Your task to perform on an android device: Open eBay Image 0: 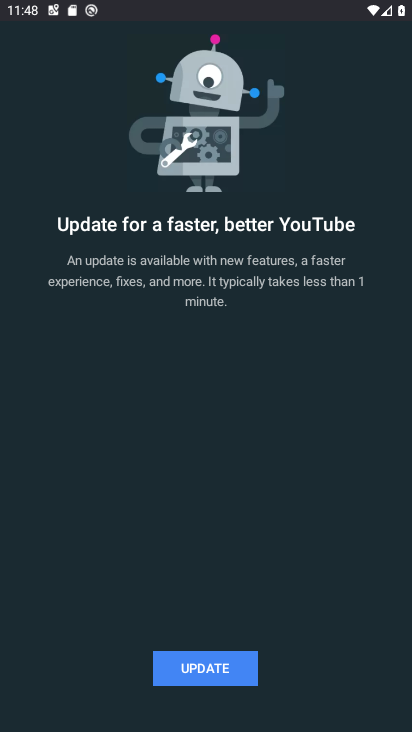
Step 0: press home button
Your task to perform on an android device: Open eBay Image 1: 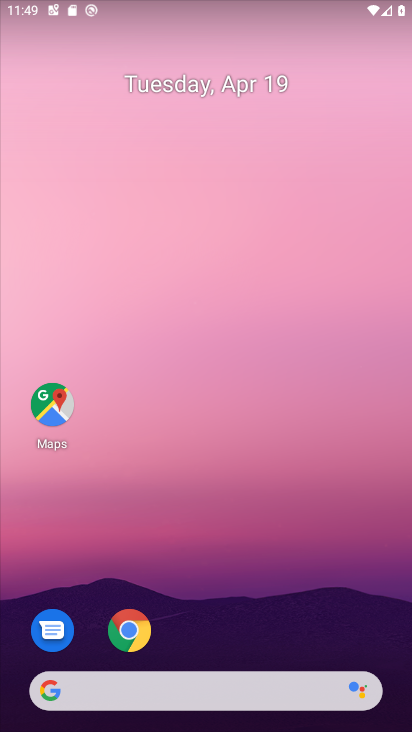
Step 1: drag from (293, 632) to (220, 41)
Your task to perform on an android device: Open eBay Image 2: 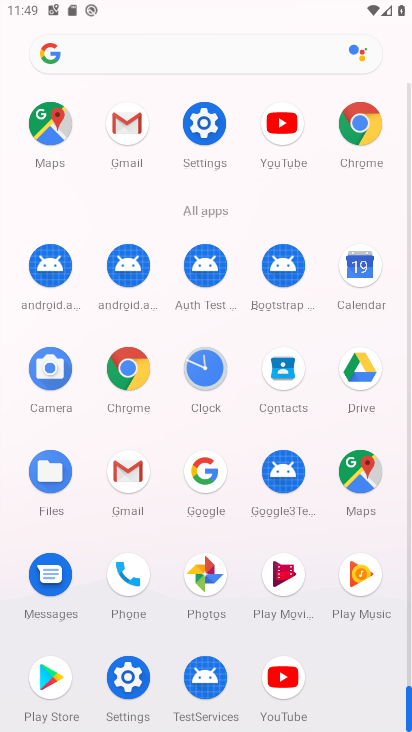
Step 2: click (125, 366)
Your task to perform on an android device: Open eBay Image 3: 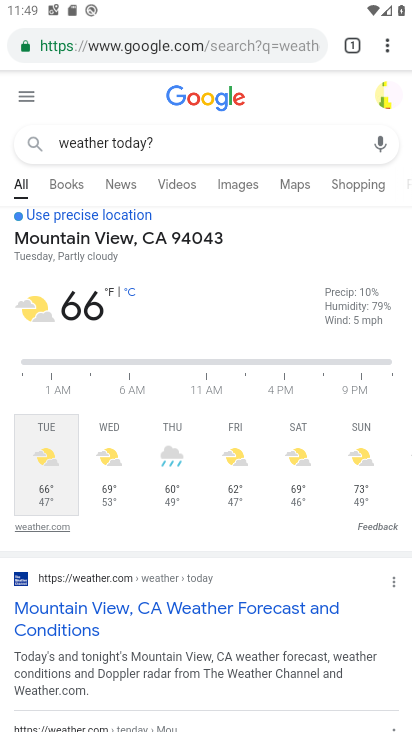
Step 3: click (222, 142)
Your task to perform on an android device: Open eBay Image 4: 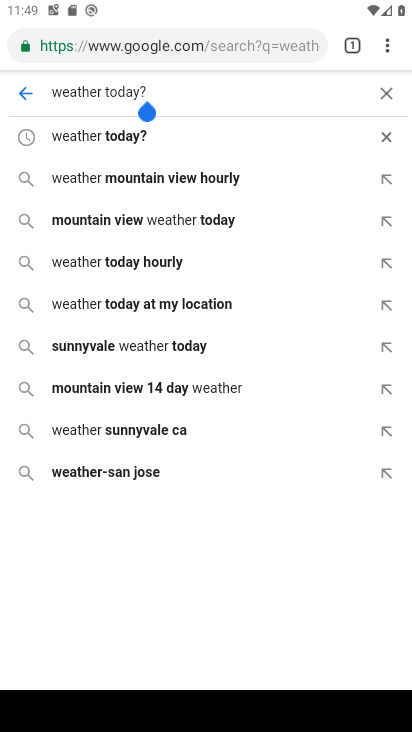
Step 4: type "eBay"
Your task to perform on an android device: Open eBay Image 5: 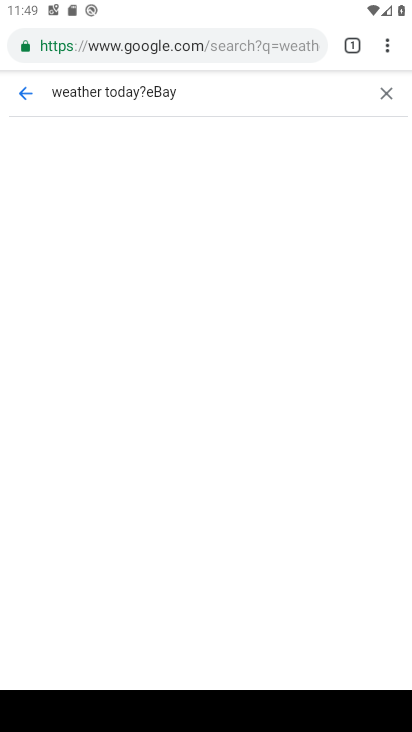
Step 5: click (144, 86)
Your task to perform on an android device: Open eBay Image 6: 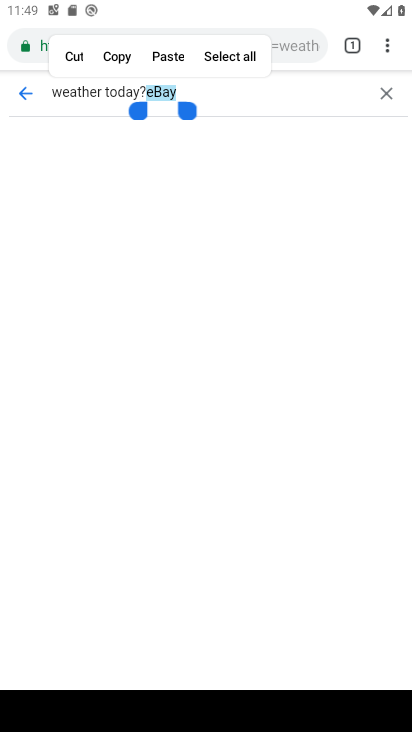
Step 6: click (378, 91)
Your task to perform on an android device: Open eBay Image 7: 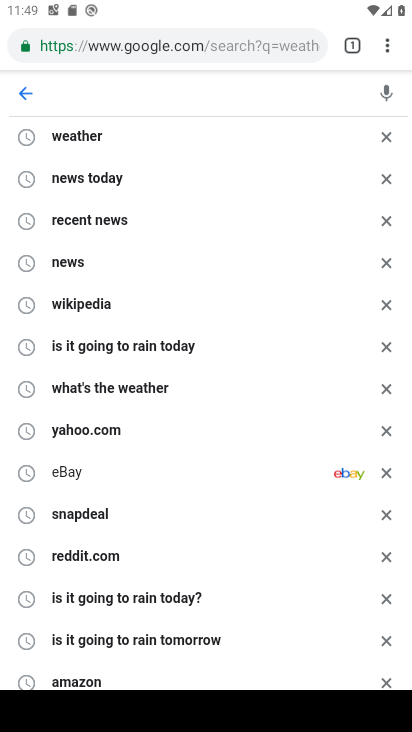
Step 7: type "eBay"
Your task to perform on an android device: Open eBay Image 8: 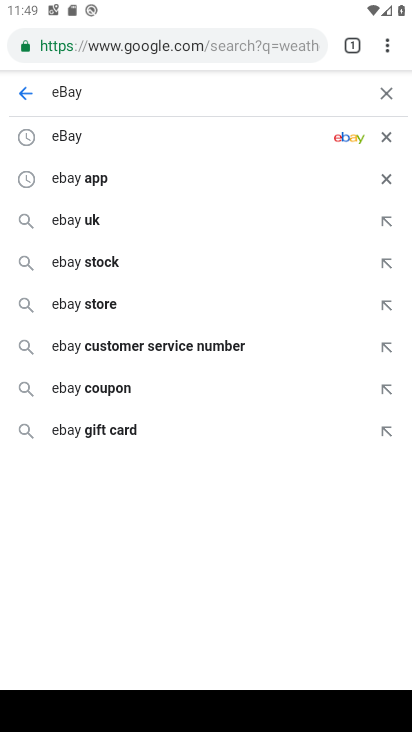
Step 8: click (59, 136)
Your task to perform on an android device: Open eBay Image 9: 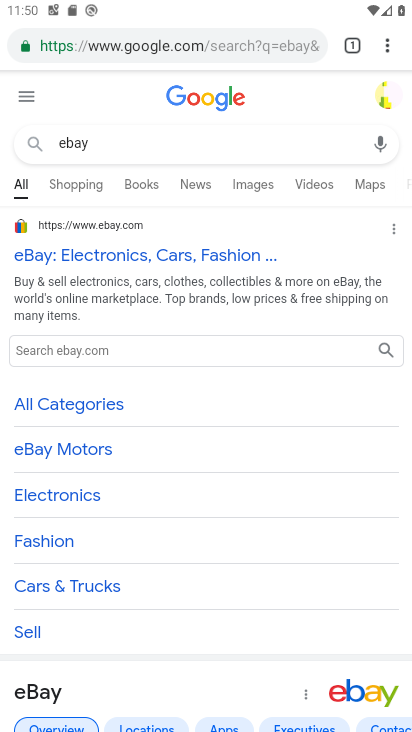
Step 9: task complete